Your task to perform on an android device: Go to wifi settings Image 0: 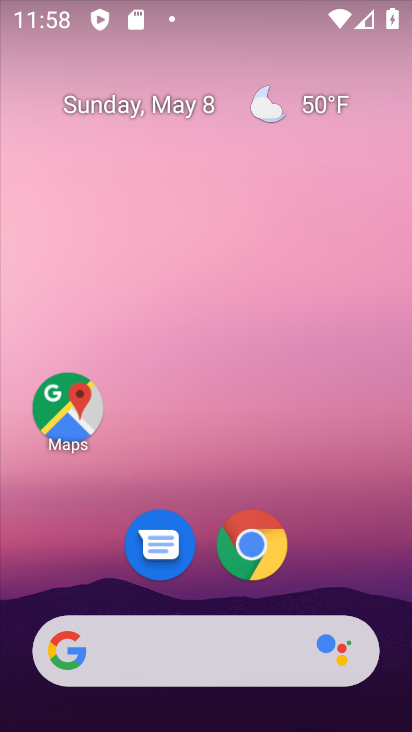
Step 0: drag from (193, 584) to (140, 46)
Your task to perform on an android device: Go to wifi settings Image 1: 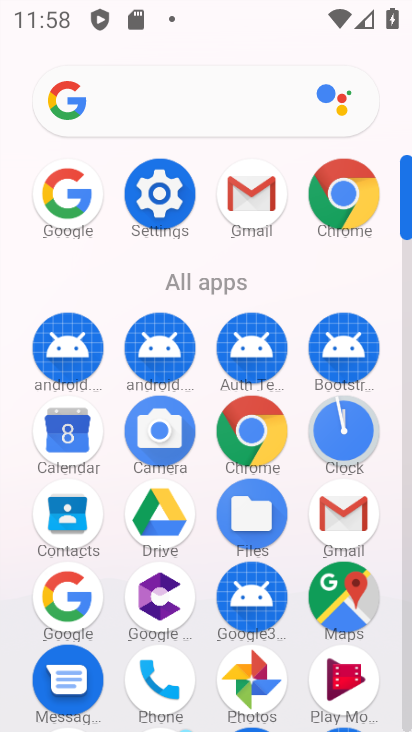
Step 1: click (150, 161)
Your task to perform on an android device: Go to wifi settings Image 2: 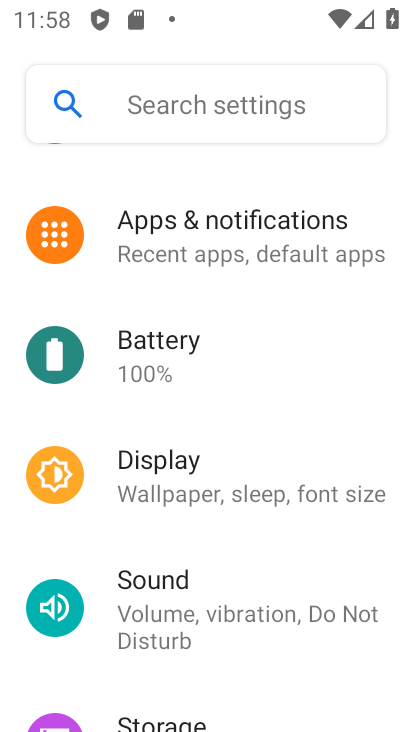
Step 2: drag from (156, 215) to (193, 488)
Your task to perform on an android device: Go to wifi settings Image 3: 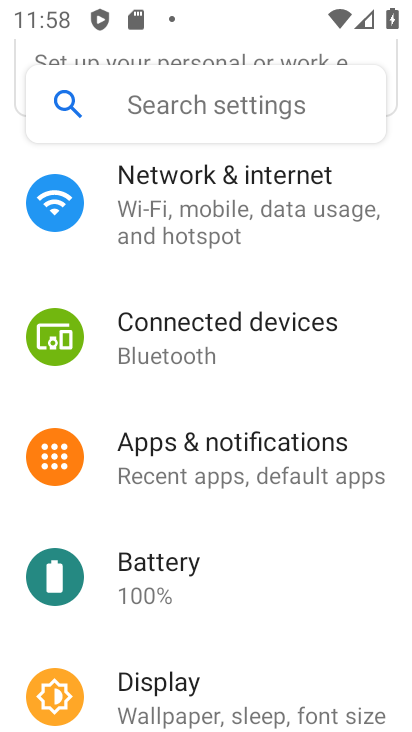
Step 3: click (165, 234)
Your task to perform on an android device: Go to wifi settings Image 4: 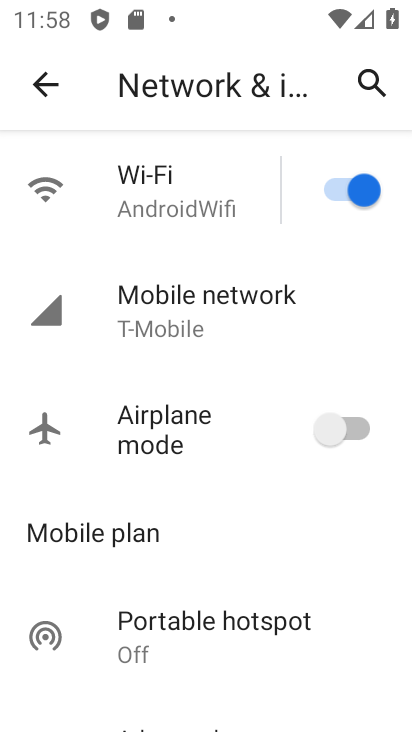
Step 4: click (162, 206)
Your task to perform on an android device: Go to wifi settings Image 5: 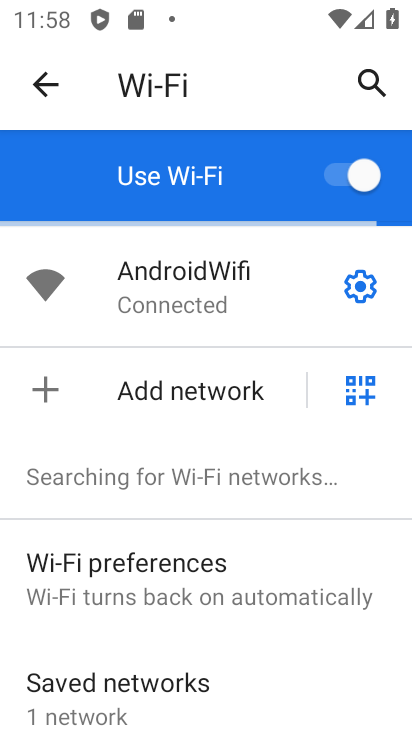
Step 5: task complete